Your task to perform on an android device: Open the Play Movies app and select the watchlist tab. Image 0: 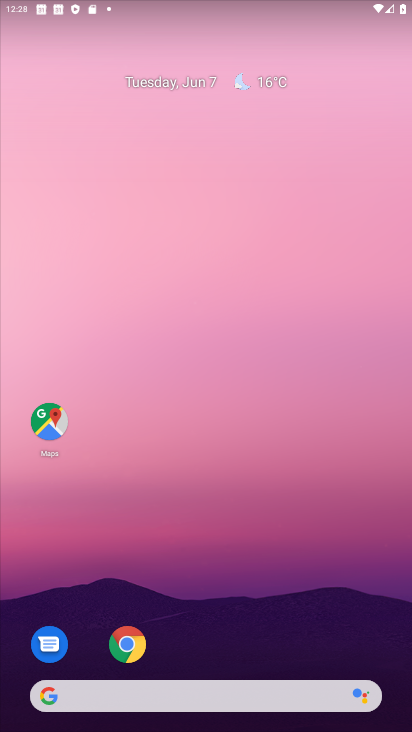
Step 0: drag from (218, 644) to (76, 268)
Your task to perform on an android device: Open the Play Movies app and select the watchlist tab. Image 1: 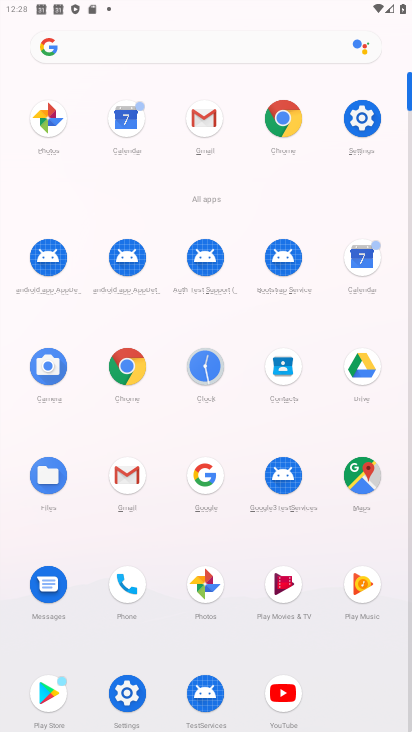
Step 1: click (278, 594)
Your task to perform on an android device: Open the Play Movies app and select the watchlist tab. Image 2: 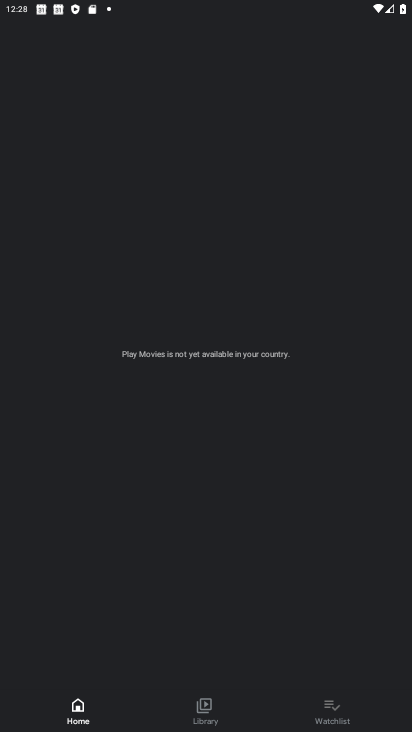
Step 2: click (328, 695)
Your task to perform on an android device: Open the Play Movies app and select the watchlist tab. Image 3: 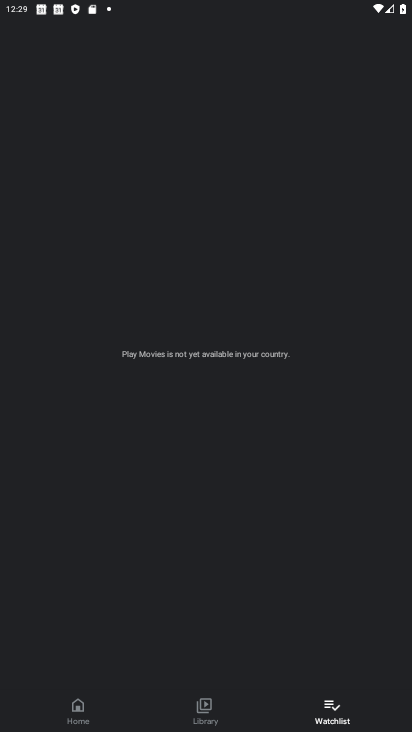
Step 3: task complete